Your task to perform on an android device: turn on airplane mode Image 0: 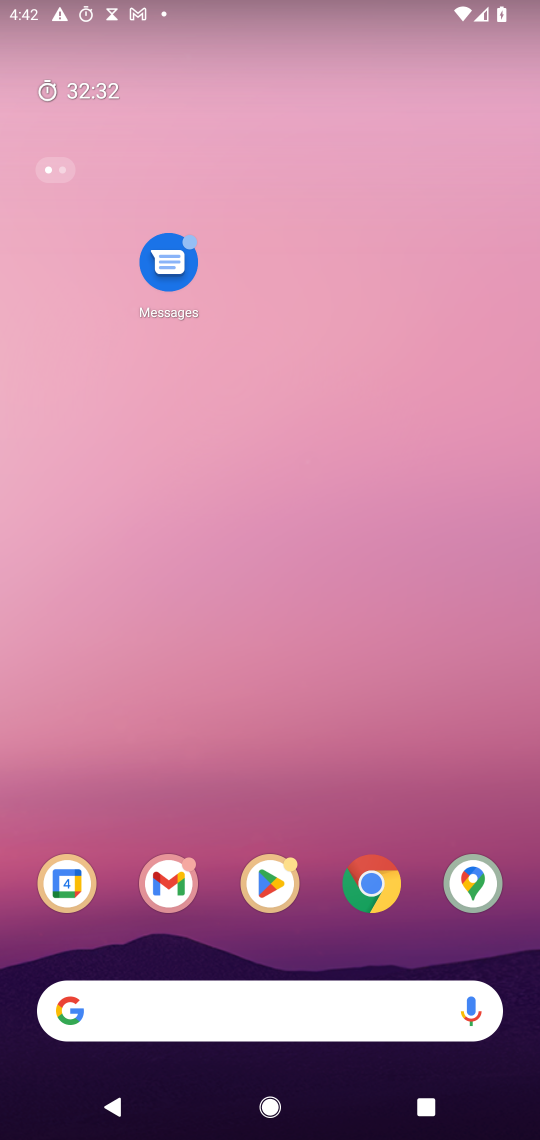
Step 0: drag from (313, 923) to (313, 28)
Your task to perform on an android device: turn on airplane mode Image 1: 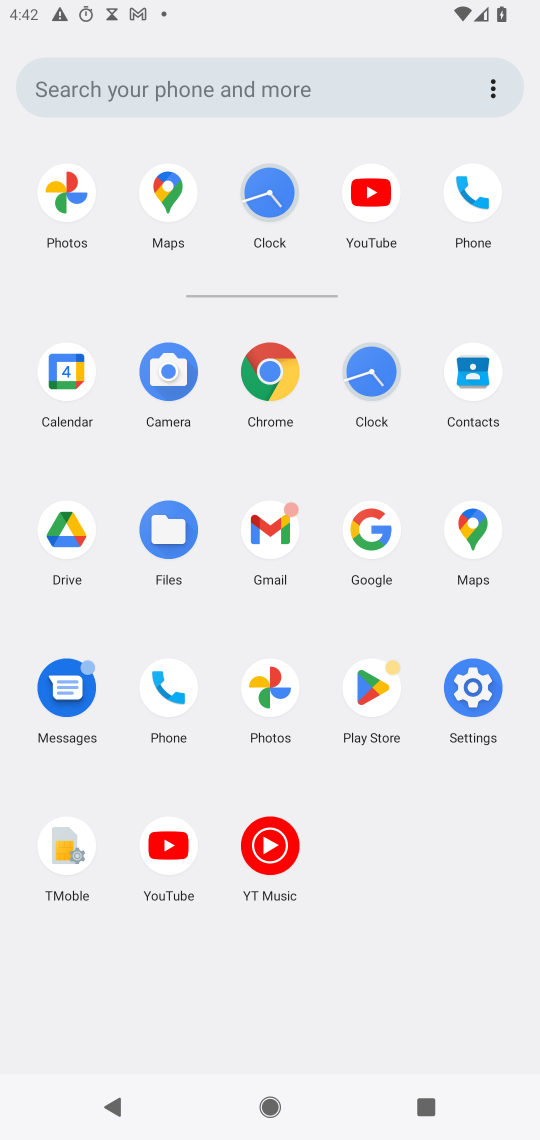
Step 1: click (473, 690)
Your task to perform on an android device: turn on airplane mode Image 2: 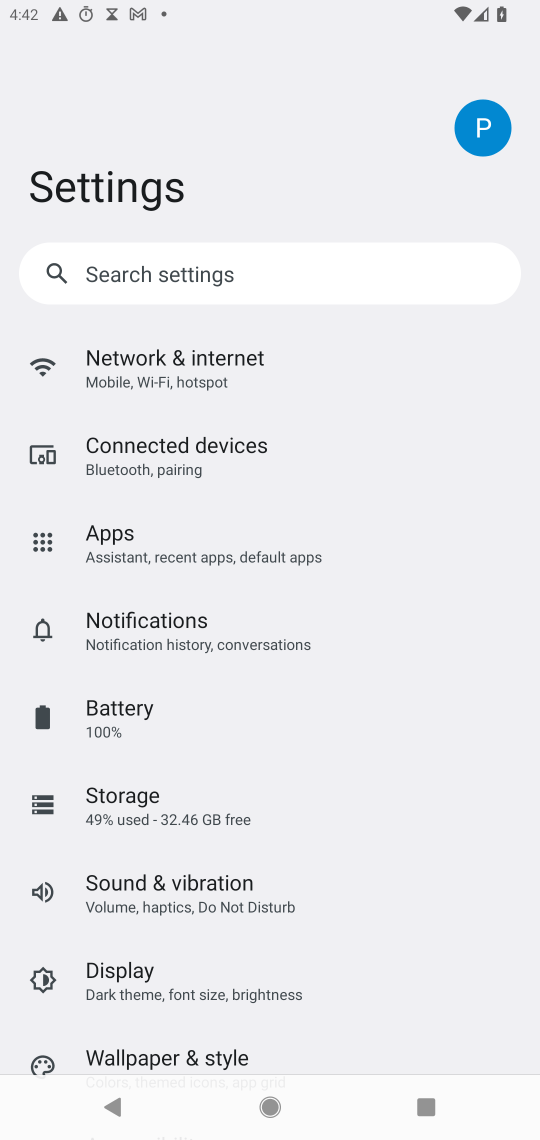
Step 2: click (105, 378)
Your task to perform on an android device: turn on airplane mode Image 3: 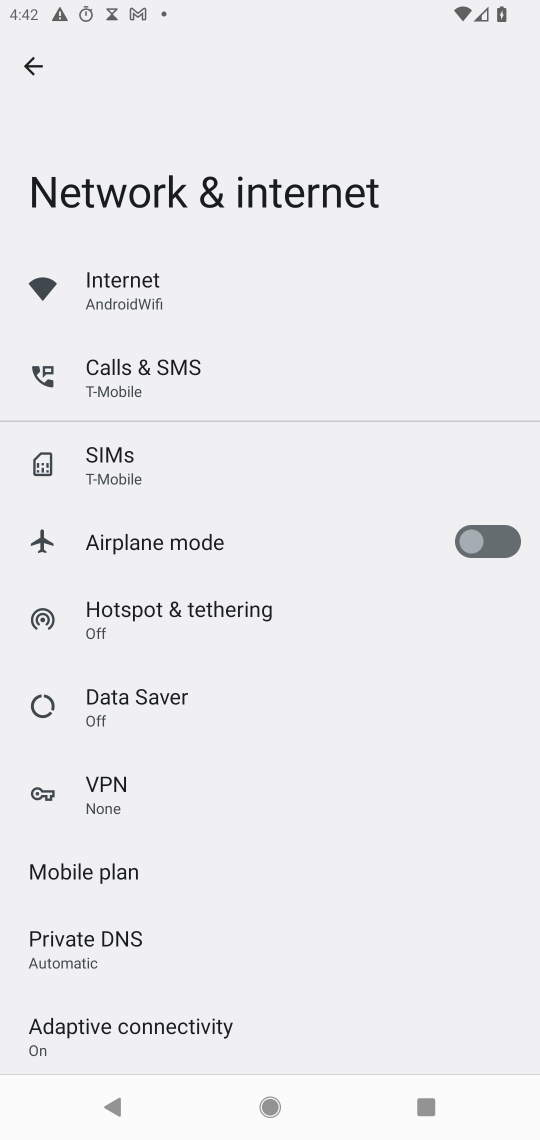
Step 3: click (498, 535)
Your task to perform on an android device: turn on airplane mode Image 4: 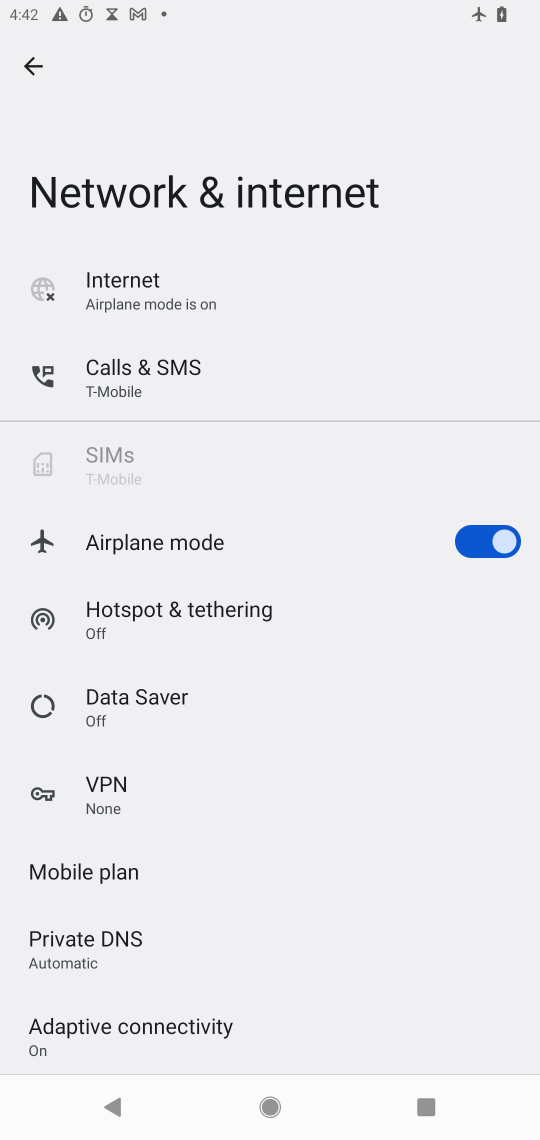
Step 4: task complete